Your task to perform on an android device: Open CNN.com Image 0: 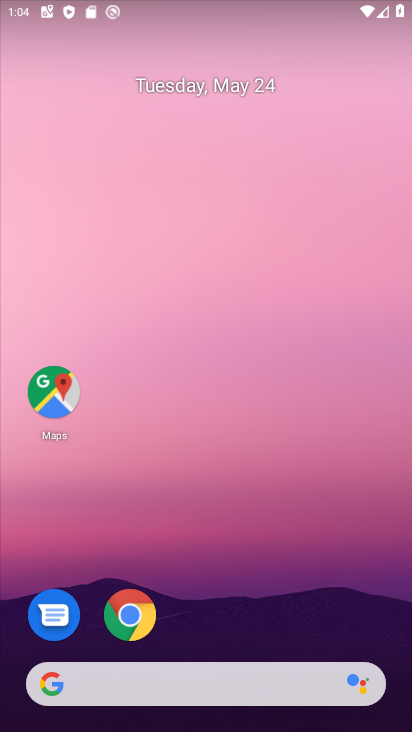
Step 0: press home button
Your task to perform on an android device: Open CNN.com Image 1: 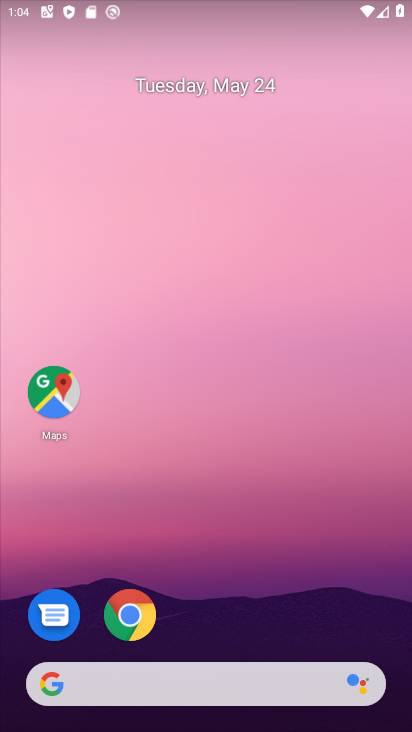
Step 1: click (126, 607)
Your task to perform on an android device: Open CNN.com Image 2: 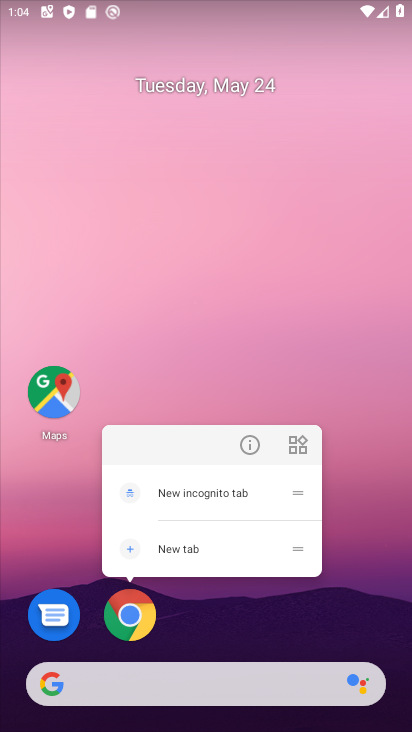
Step 2: click (126, 609)
Your task to perform on an android device: Open CNN.com Image 3: 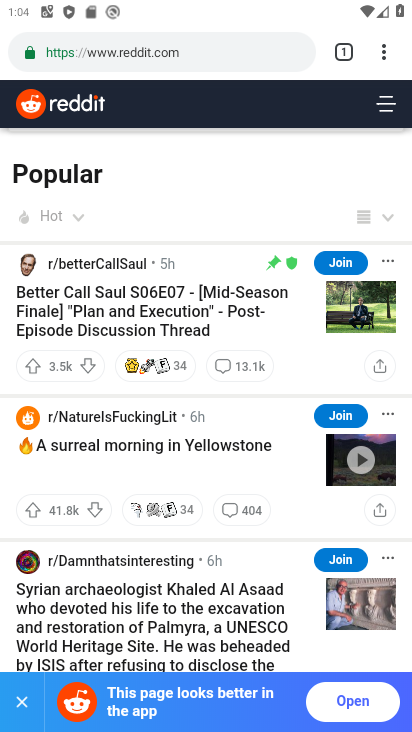
Step 3: click (347, 49)
Your task to perform on an android device: Open CNN.com Image 4: 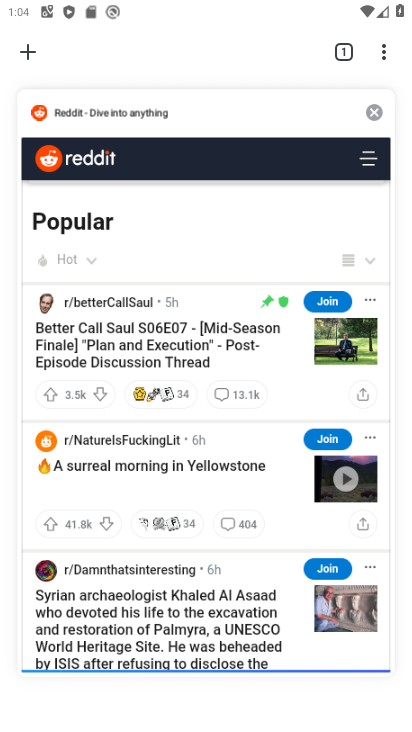
Step 4: click (372, 107)
Your task to perform on an android device: Open CNN.com Image 5: 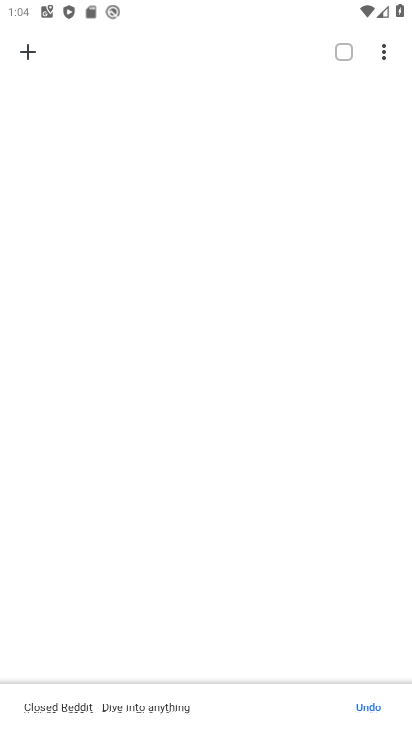
Step 5: click (31, 50)
Your task to perform on an android device: Open CNN.com Image 6: 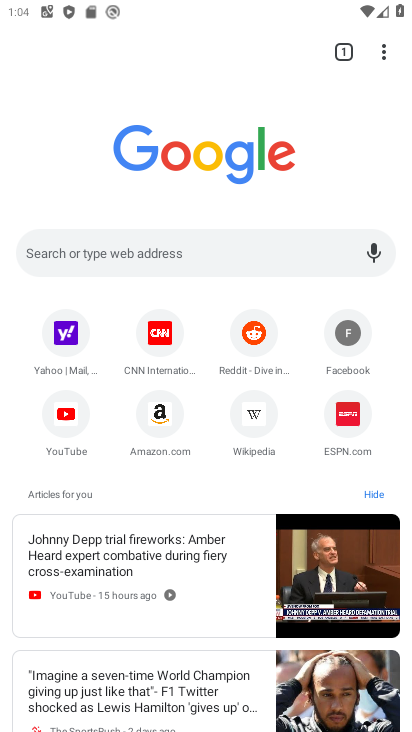
Step 6: click (114, 242)
Your task to perform on an android device: Open CNN.com Image 7: 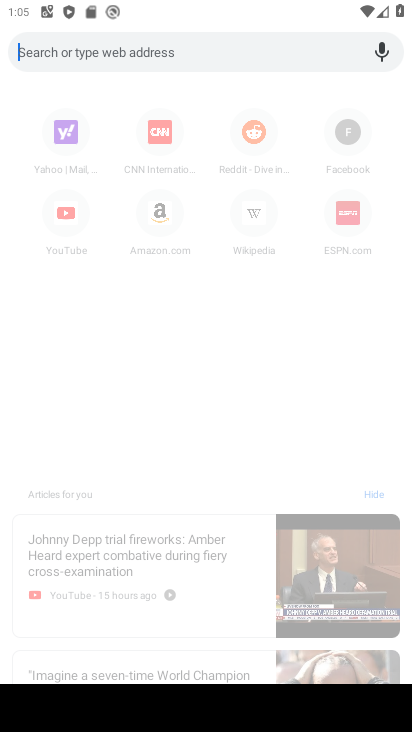
Step 7: type "cnn.com"
Your task to perform on an android device: Open CNN.com Image 8: 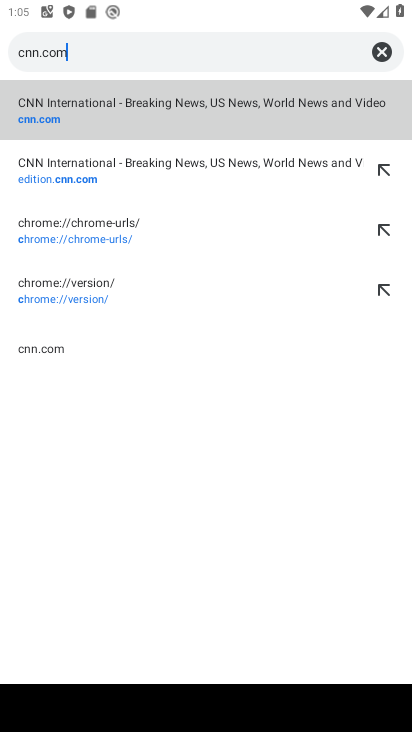
Step 8: type ""
Your task to perform on an android device: Open CNN.com Image 9: 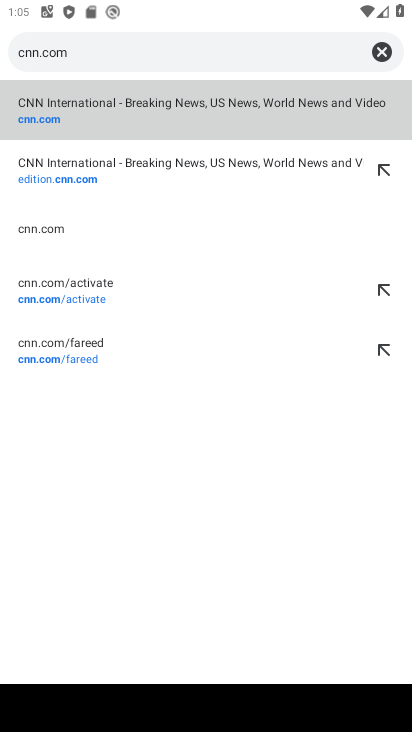
Step 9: click (70, 107)
Your task to perform on an android device: Open CNN.com Image 10: 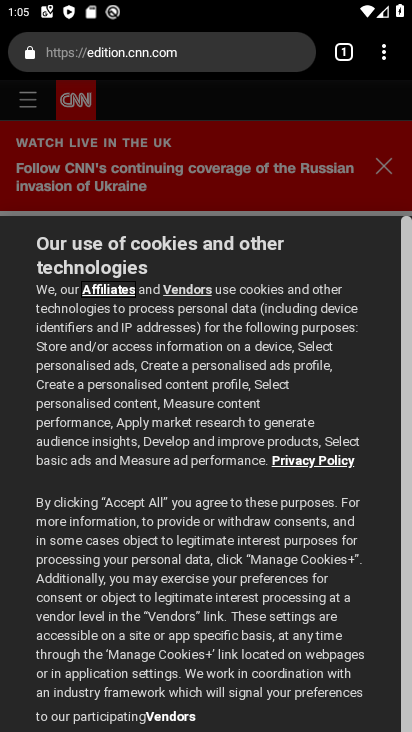
Step 10: drag from (205, 697) to (202, 199)
Your task to perform on an android device: Open CNN.com Image 11: 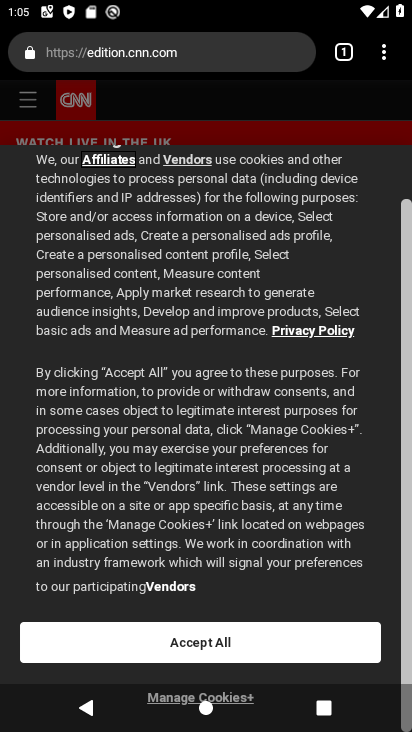
Step 11: click (198, 649)
Your task to perform on an android device: Open CNN.com Image 12: 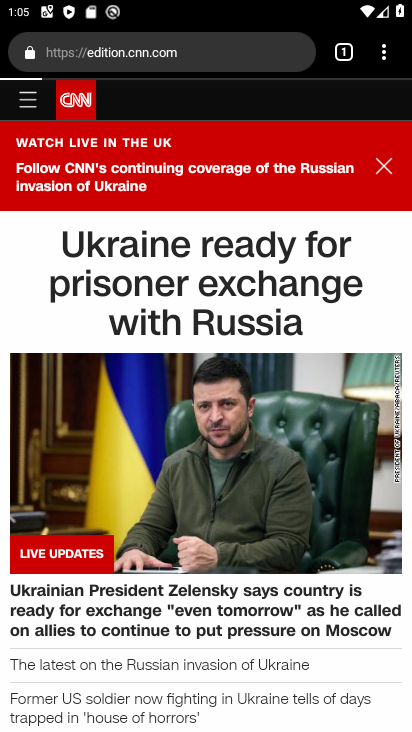
Step 12: task complete